Your task to perform on an android device: When is my next meeting? Image 0: 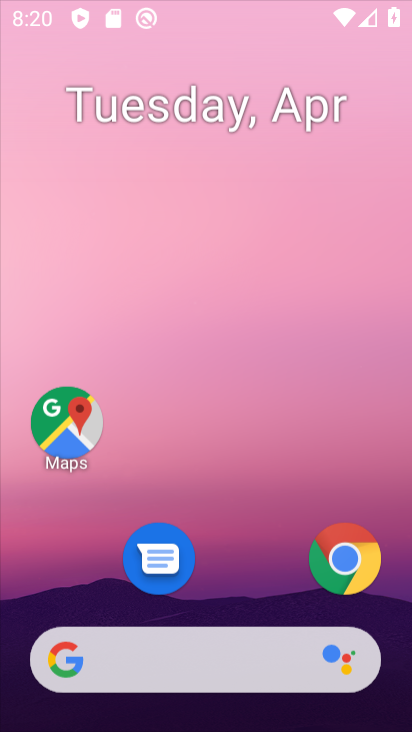
Step 0: drag from (220, 216) to (207, 51)
Your task to perform on an android device: When is my next meeting? Image 1: 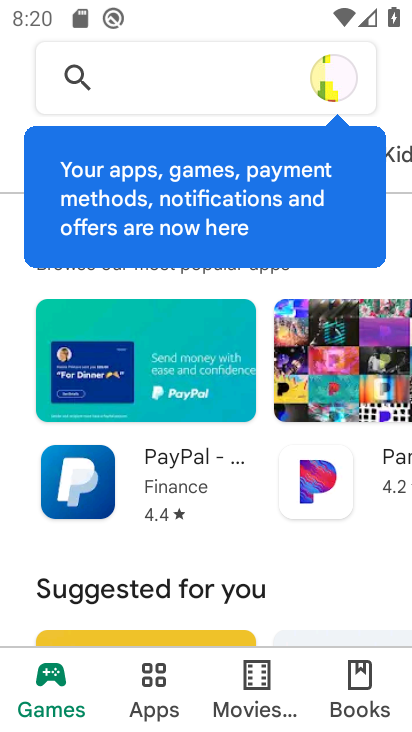
Step 1: press home button
Your task to perform on an android device: When is my next meeting? Image 2: 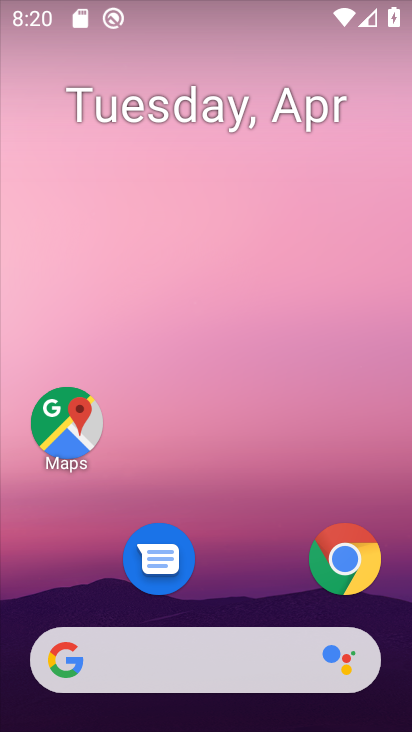
Step 2: drag from (185, 706) to (177, 86)
Your task to perform on an android device: When is my next meeting? Image 3: 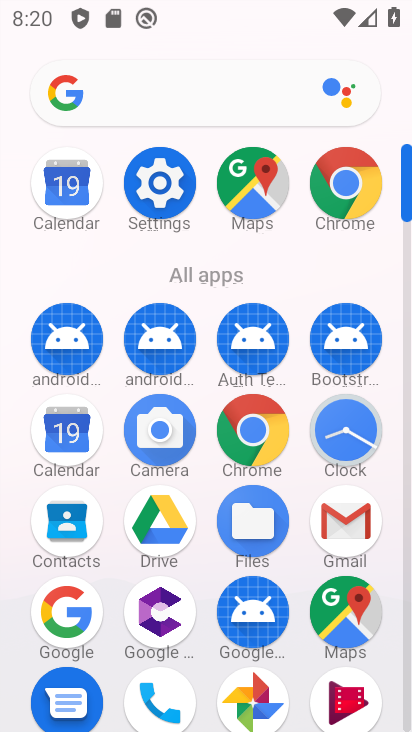
Step 3: click (54, 178)
Your task to perform on an android device: When is my next meeting? Image 4: 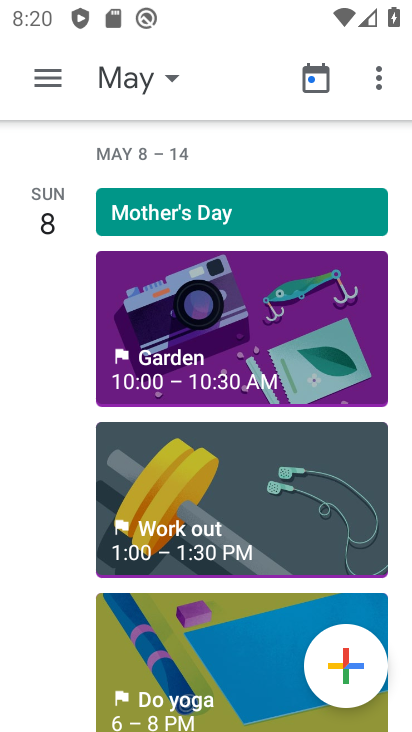
Step 4: click (159, 84)
Your task to perform on an android device: When is my next meeting? Image 5: 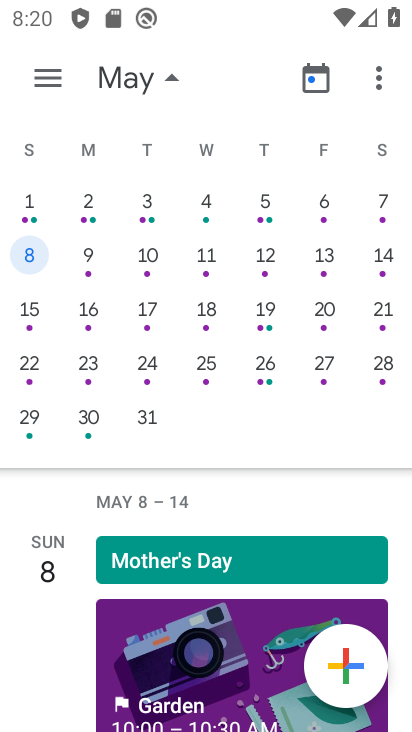
Step 5: click (171, 73)
Your task to perform on an android device: When is my next meeting? Image 6: 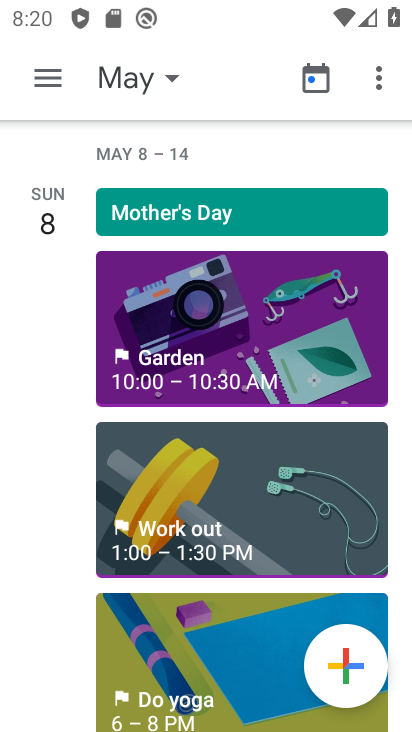
Step 6: click (56, 70)
Your task to perform on an android device: When is my next meeting? Image 7: 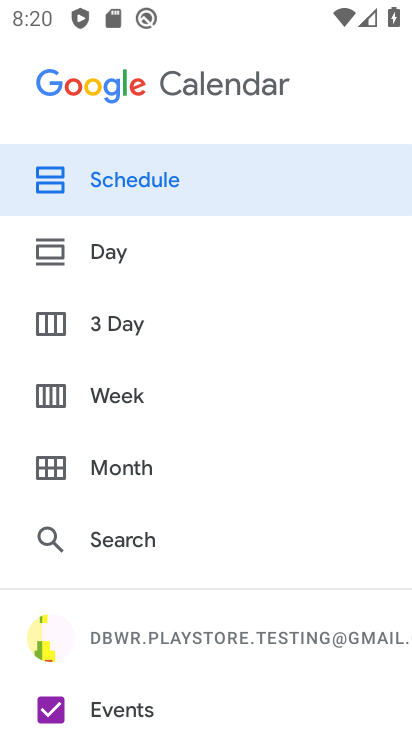
Step 7: click (116, 462)
Your task to perform on an android device: When is my next meeting? Image 8: 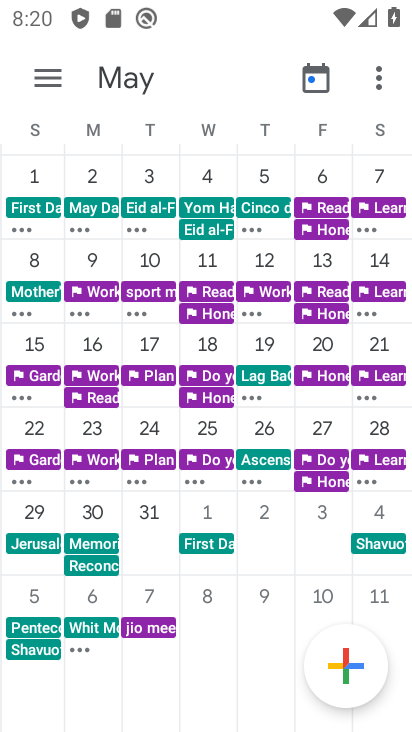
Step 8: drag from (81, 324) to (406, 260)
Your task to perform on an android device: When is my next meeting? Image 9: 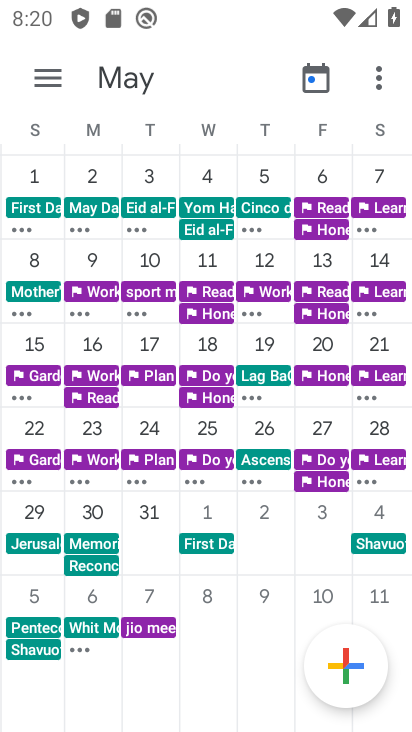
Step 9: drag from (17, 263) to (117, 287)
Your task to perform on an android device: When is my next meeting? Image 10: 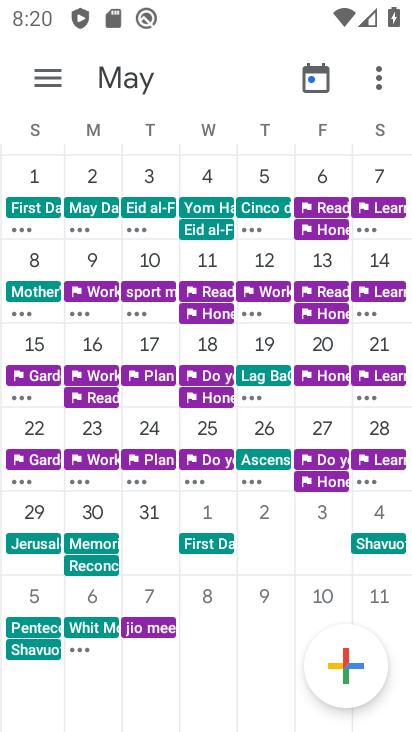
Step 10: drag from (33, 346) to (306, 303)
Your task to perform on an android device: When is my next meeting? Image 11: 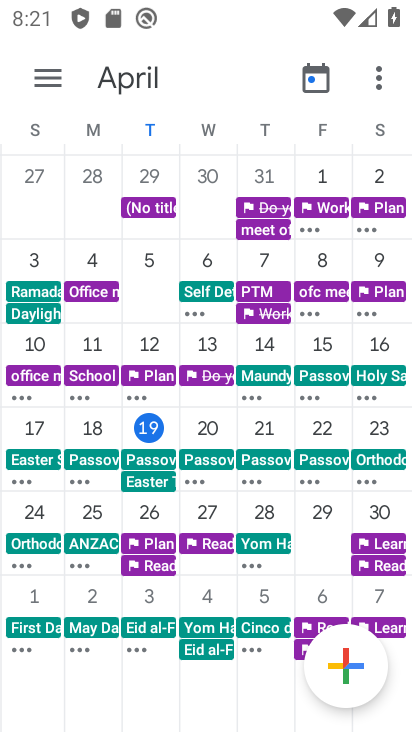
Step 11: click (48, 72)
Your task to perform on an android device: When is my next meeting? Image 12: 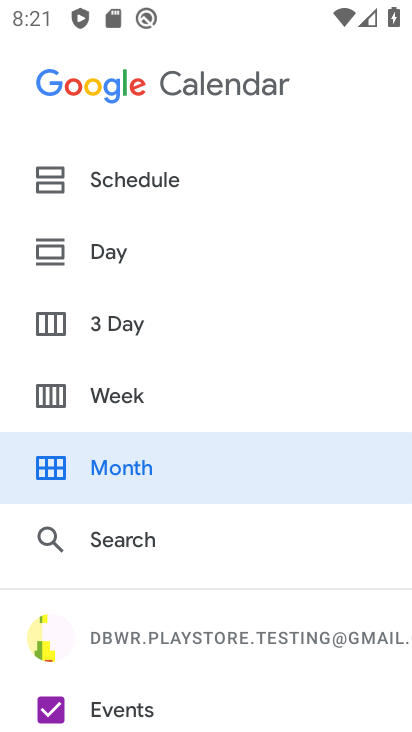
Step 12: click (122, 181)
Your task to perform on an android device: When is my next meeting? Image 13: 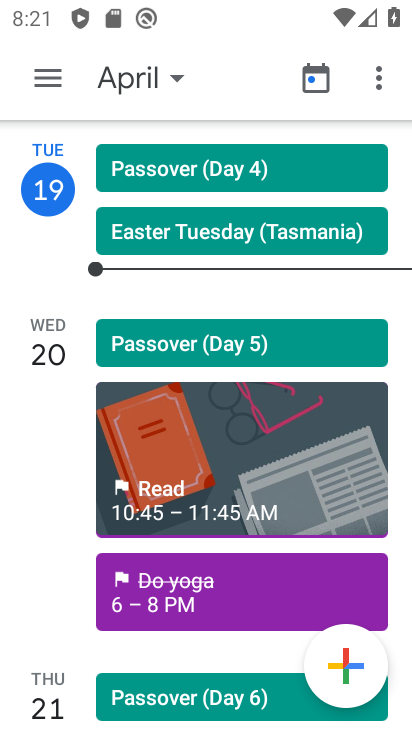
Step 13: task complete